Your task to perform on an android device: refresh tabs in the chrome app Image 0: 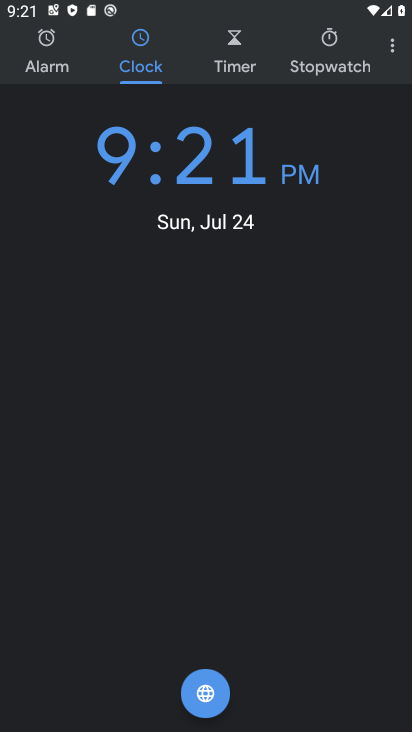
Step 0: press home button
Your task to perform on an android device: refresh tabs in the chrome app Image 1: 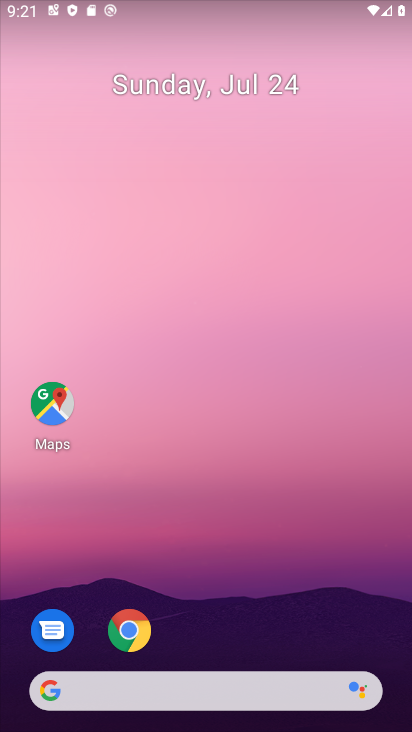
Step 1: click (147, 624)
Your task to perform on an android device: refresh tabs in the chrome app Image 2: 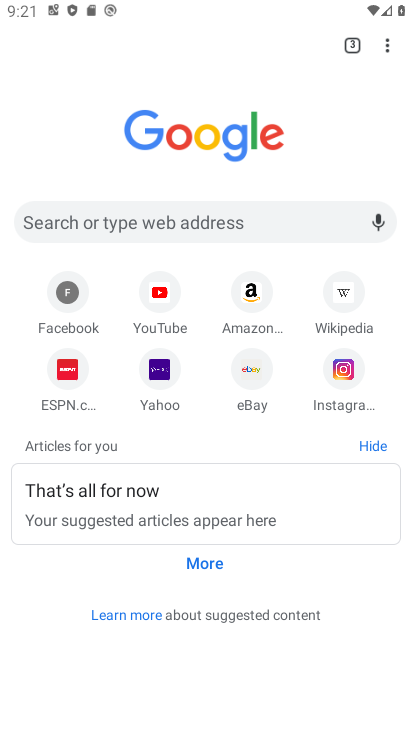
Step 2: click (392, 42)
Your task to perform on an android device: refresh tabs in the chrome app Image 3: 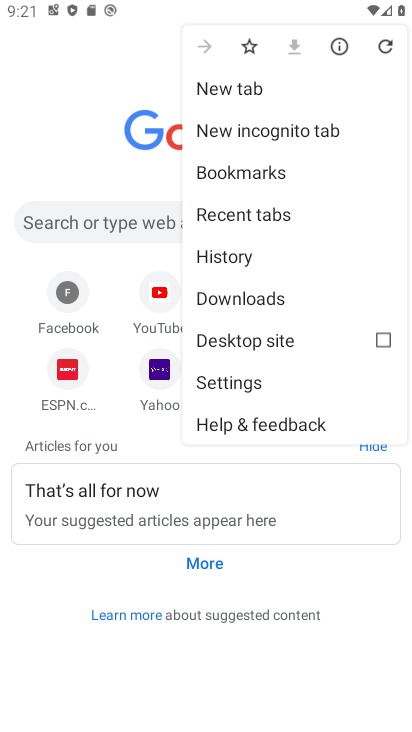
Step 3: click (381, 48)
Your task to perform on an android device: refresh tabs in the chrome app Image 4: 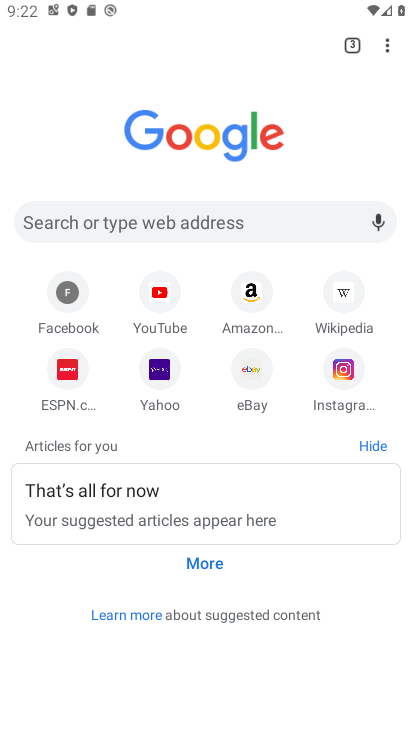
Step 4: task complete